Your task to perform on an android device: Go to Android settings Image 0: 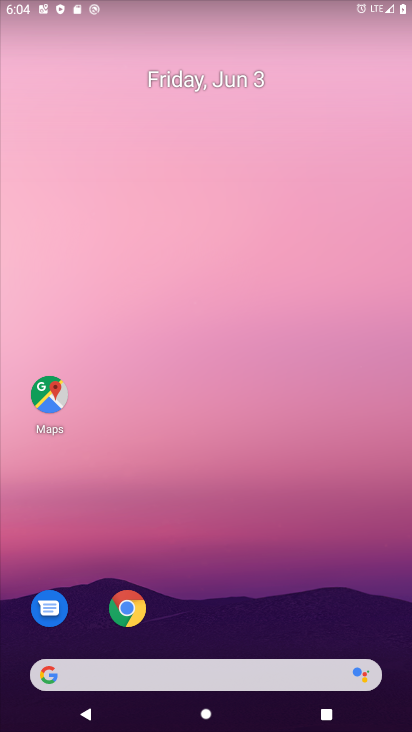
Step 0: drag from (208, 534) to (310, 68)
Your task to perform on an android device: Go to Android settings Image 1: 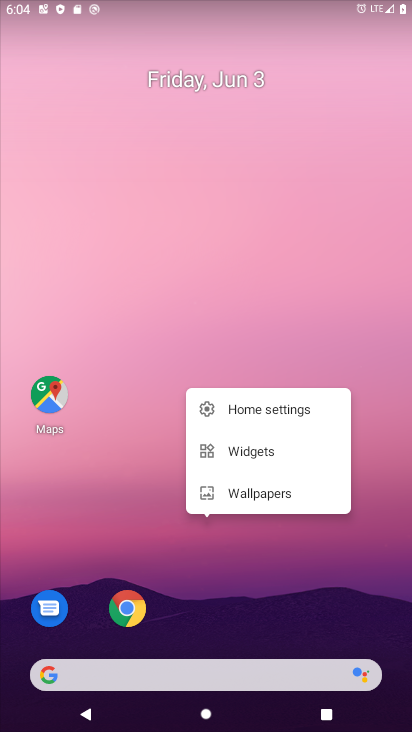
Step 1: click (310, 68)
Your task to perform on an android device: Go to Android settings Image 2: 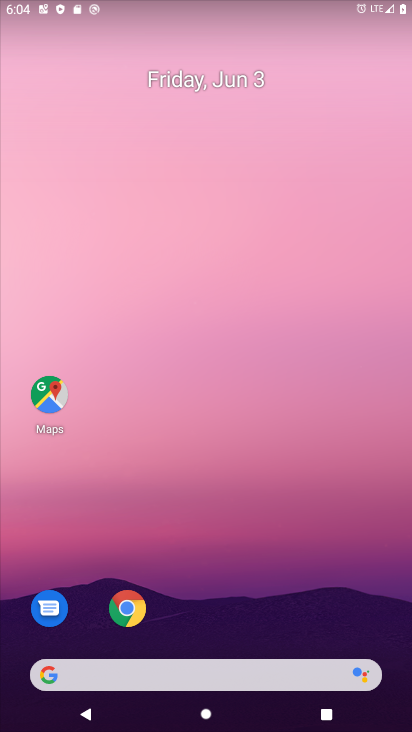
Step 2: drag from (276, 434) to (267, 400)
Your task to perform on an android device: Go to Android settings Image 3: 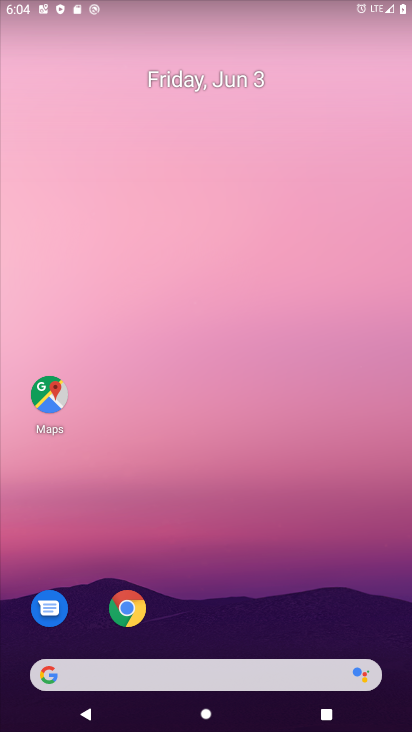
Step 3: drag from (317, 599) to (356, 134)
Your task to perform on an android device: Go to Android settings Image 4: 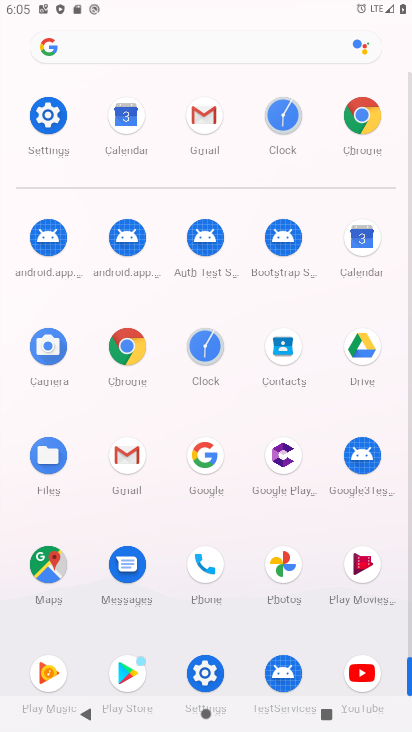
Step 4: click (56, 121)
Your task to perform on an android device: Go to Android settings Image 5: 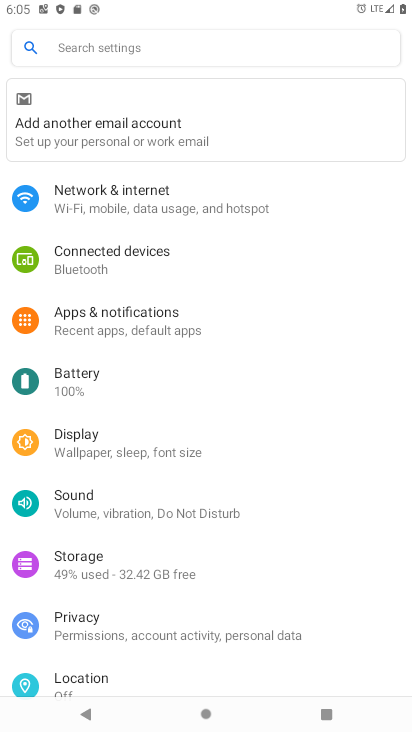
Step 5: task complete